Your task to perform on an android device: change keyboard looks Image 0: 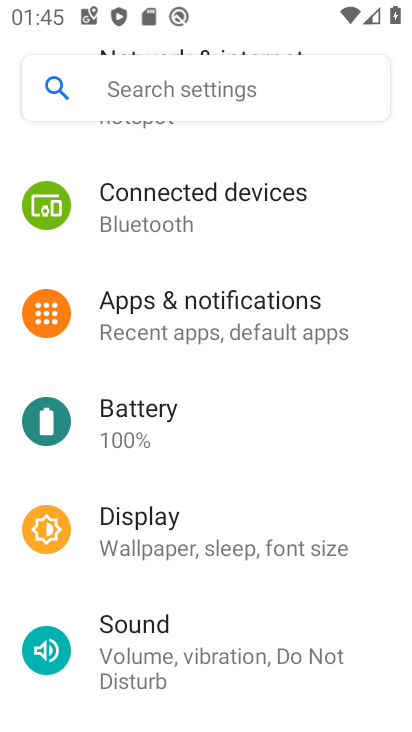
Step 0: drag from (211, 480) to (283, 324)
Your task to perform on an android device: change keyboard looks Image 1: 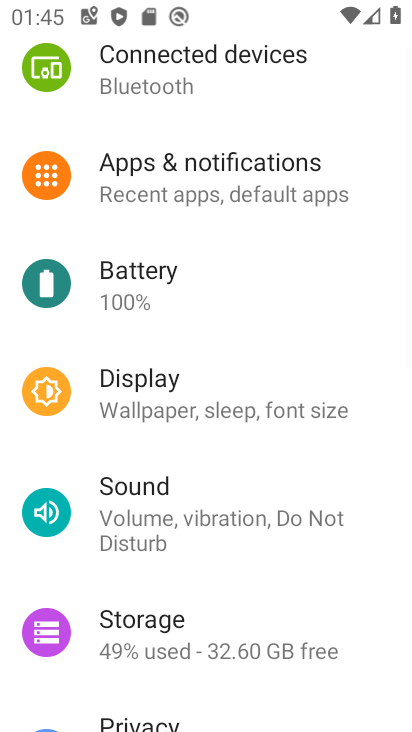
Step 1: drag from (203, 561) to (296, 374)
Your task to perform on an android device: change keyboard looks Image 2: 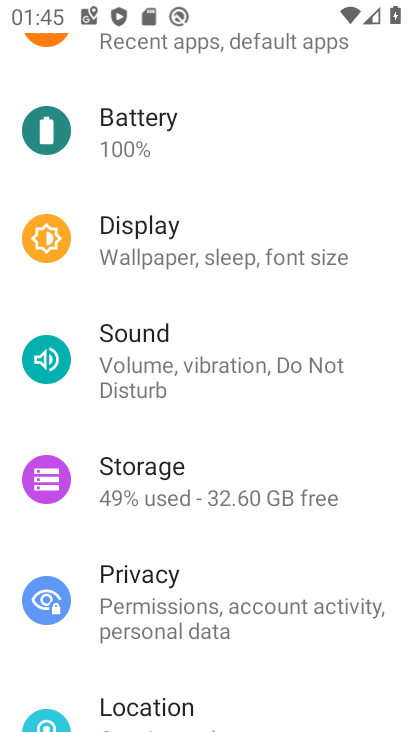
Step 2: drag from (242, 616) to (309, 398)
Your task to perform on an android device: change keyboard looks Image 3: 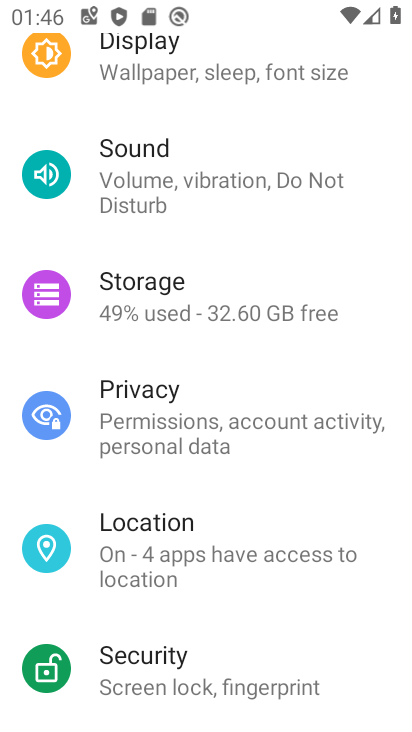
Step 3: drag from (218, 626) to (311, 417)
Your task to perform on an android device: change keyboard looks Image 4: 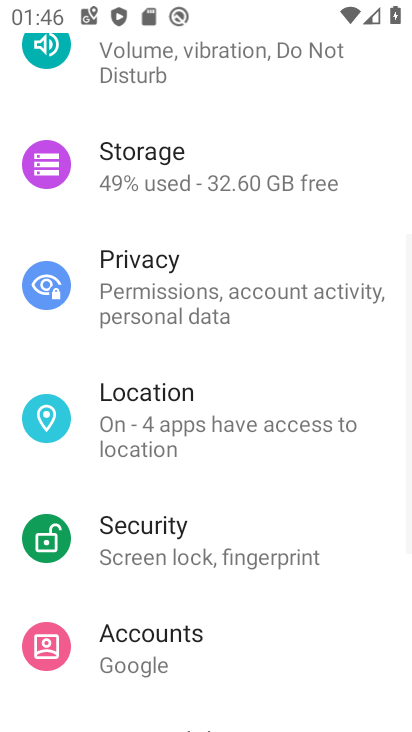
Step 4: drag from (232, 641) to (324, 388)
Your task to perform on an android device: change keyboard looks Image 5: 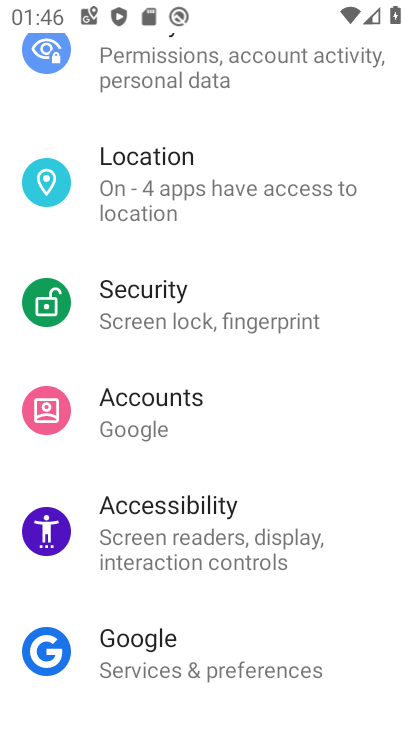
Step 5: drag from (245, 594) to (349, 382)
Your task to perform on an android device: change keyboard looks Image 6: 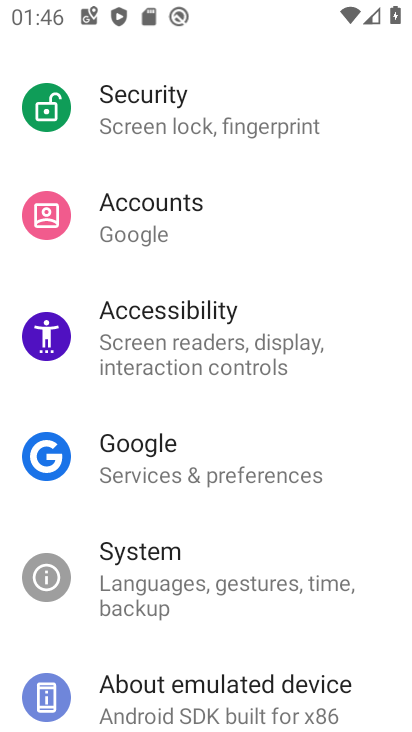
Step 6: click (183, 583)
Your task to perform on an android device: change keyboard looks Image 7: 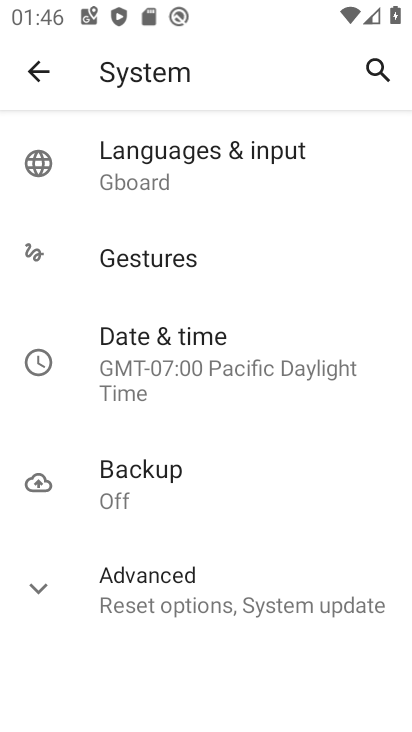
Step 7: click (160, 183)
Your task to perform on an android device: change keyboard looks Image 8: 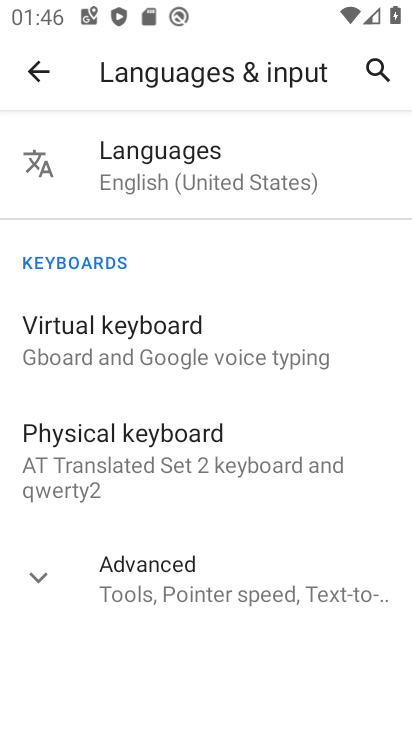
Step 8: click (176, 352)
Your task to perform on an android device: change keyboard looks Image 9: 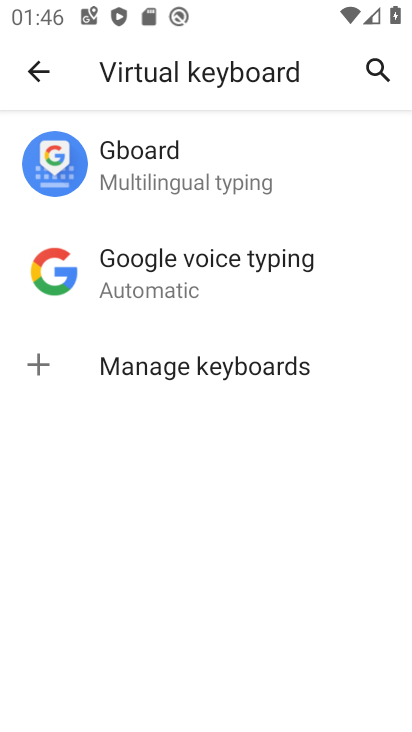
Step 9: click (204, 187)
Your task to perform on an android device: change keyboard looks Image 10: 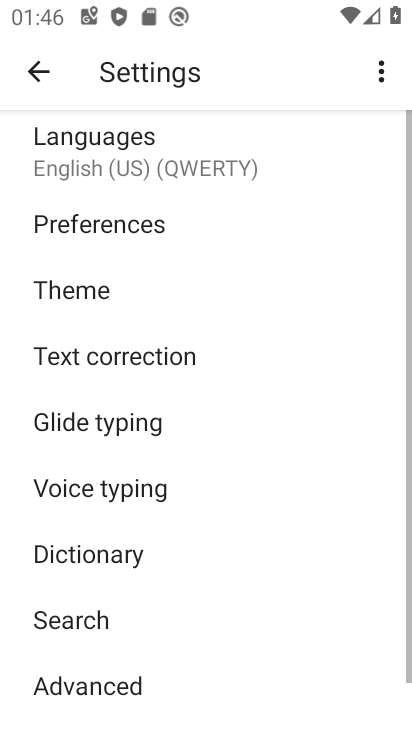
Step 10: click (88, 295)
Your task to perform on an android device: change keyboard looks Image 11: 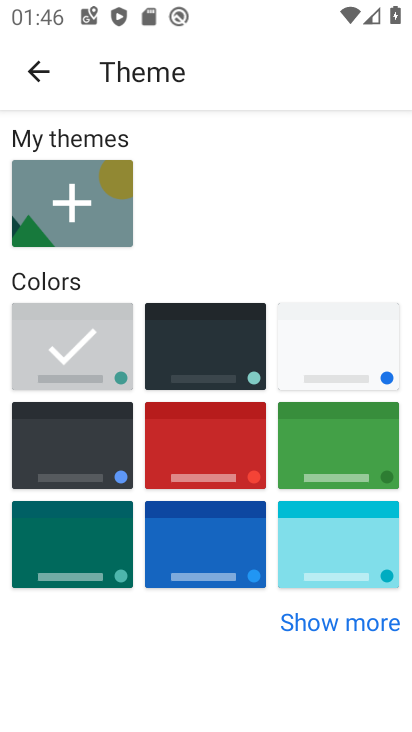
Step 11: click (367, 452)
Your task to perform on an android device: change keyboard looks Image 12: 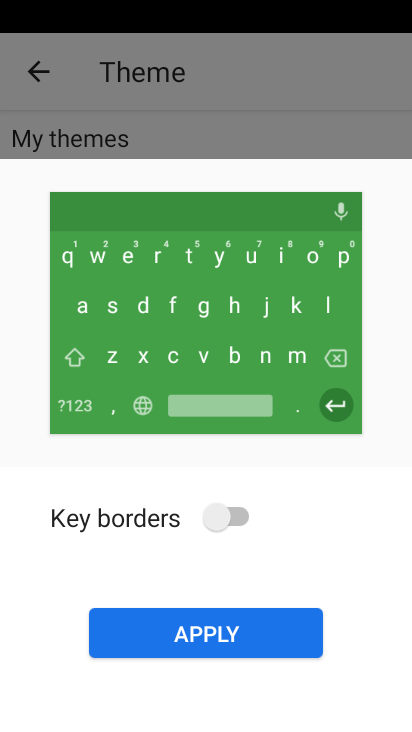
Step 12: click (234, 515)
Your task to perform on an android device: change keyboard looks Image 13: 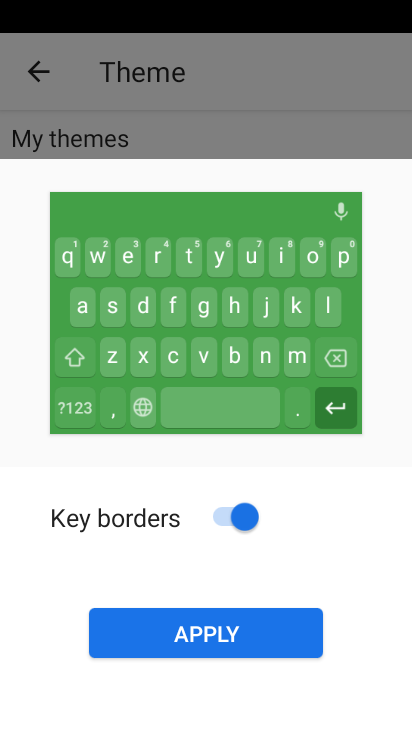
Step 13: click (223, 634)
Your task to perform on an android device: change keyboard looks Image 14: 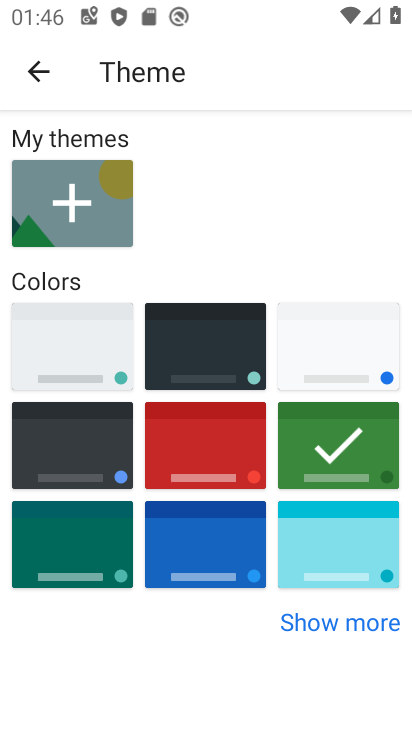
Step 14: task complete